Your task to perform on an android device: manage bookmarks in the chrome app Image 0: 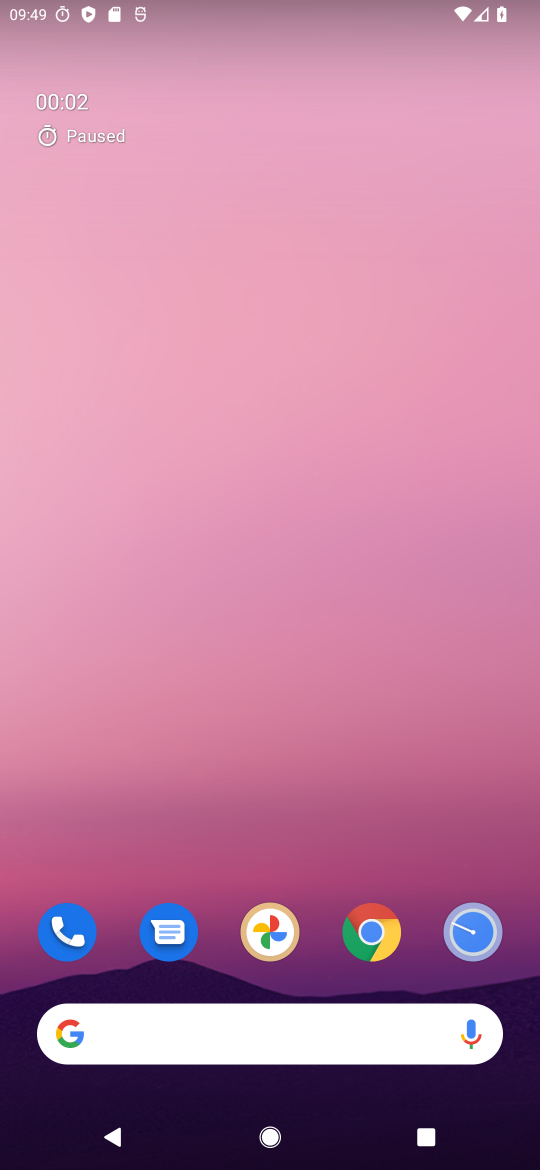
Step 0: press home button
Your task to perform on an android device: manage bookmarks in the chrome app Image 1: 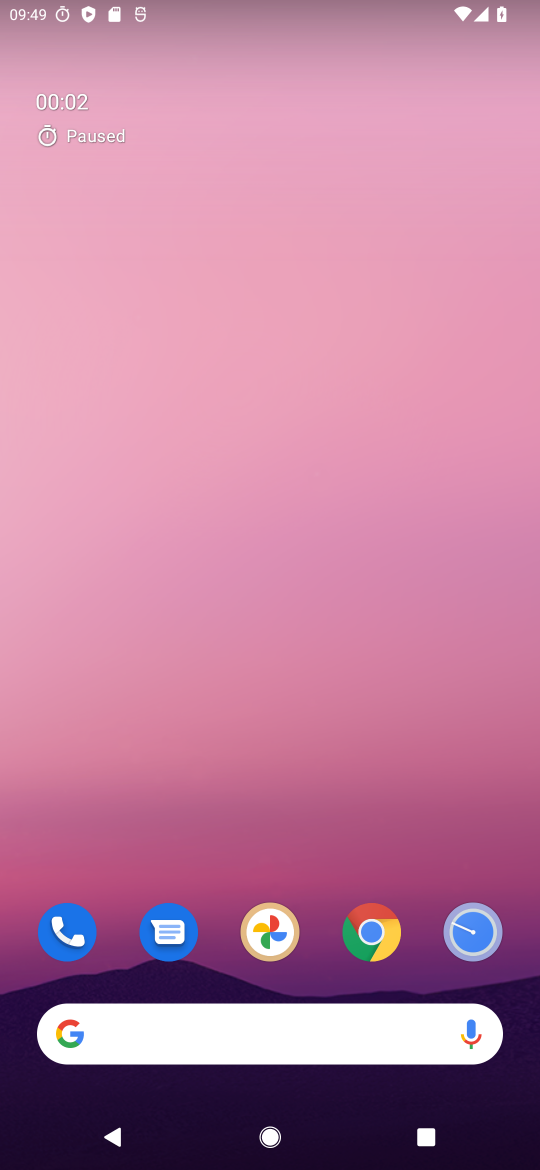
Step 1: click (380, 928)
Your task to perform on an android device: manage bookmarks in the chrome app Image 2: 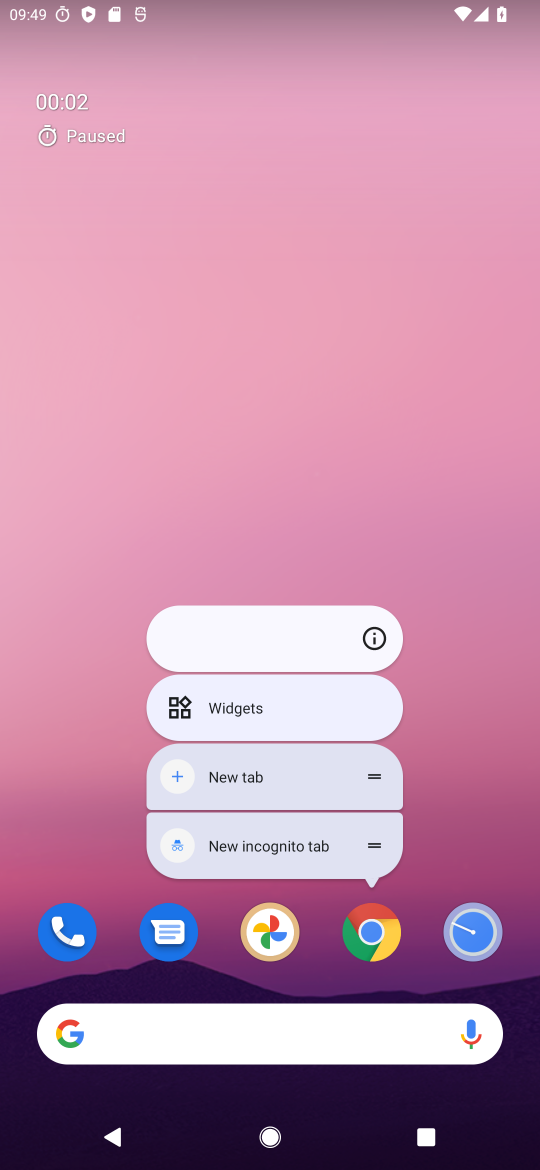
Step 2: click (380, 929)
Your task to perform on an android device: manage bookmarks in the chrome app Image 3: 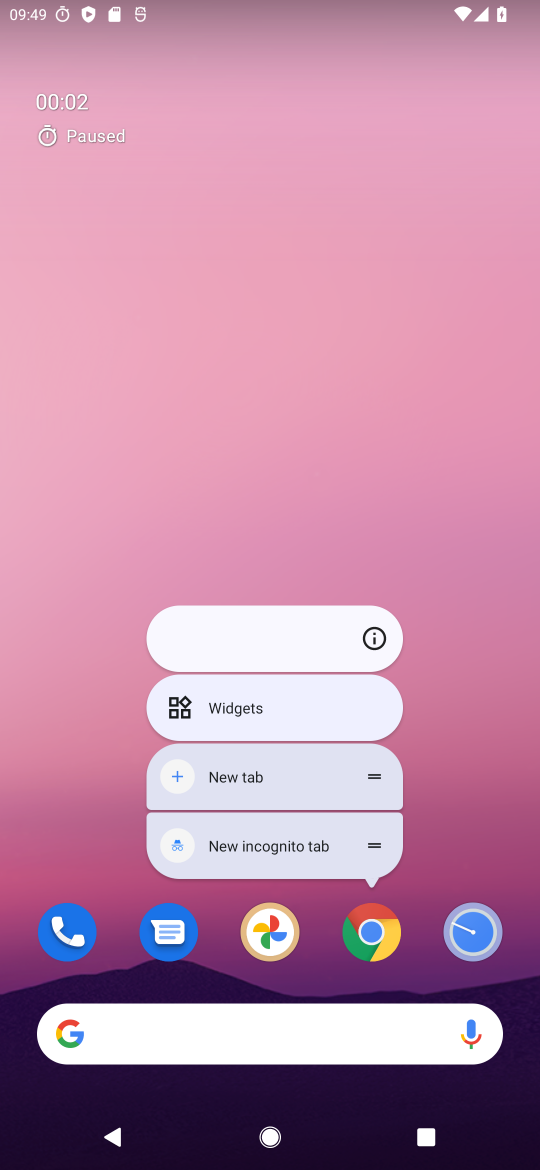
Step 3: click (380, 929)
Your task to perform on an android device: manage bookmarks in the chrome app Image 4: 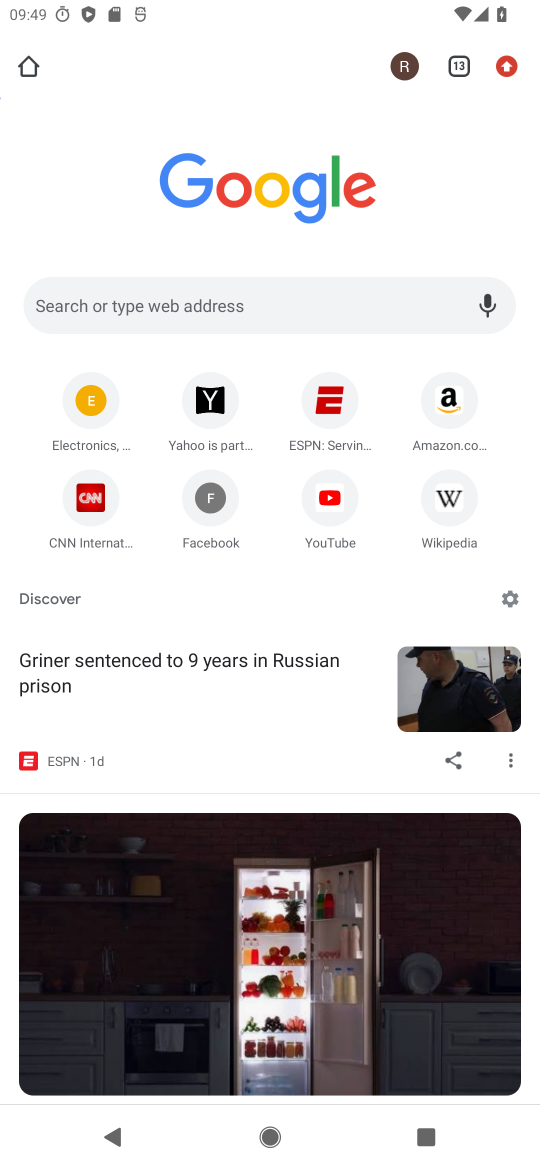
Step 4: drag from (509, 63) to (338, 442)
Your task to perform on an android device: manage bookmarks in the chrome app Image 5: 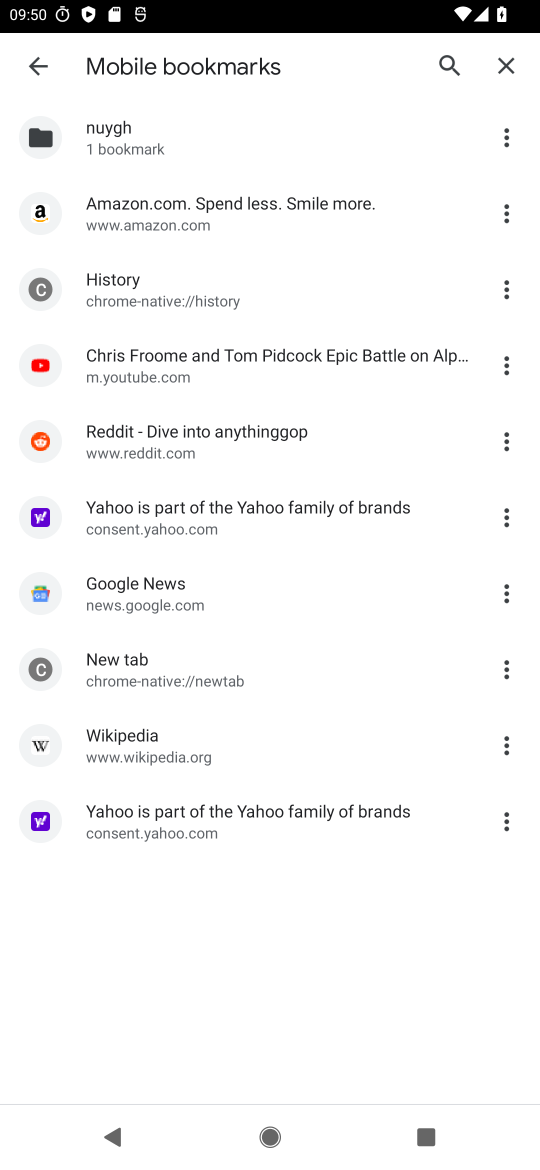
Step 5: click (503, 213)
Your task to perform on an android device: manage bookmarks in the chrome app Image 6: 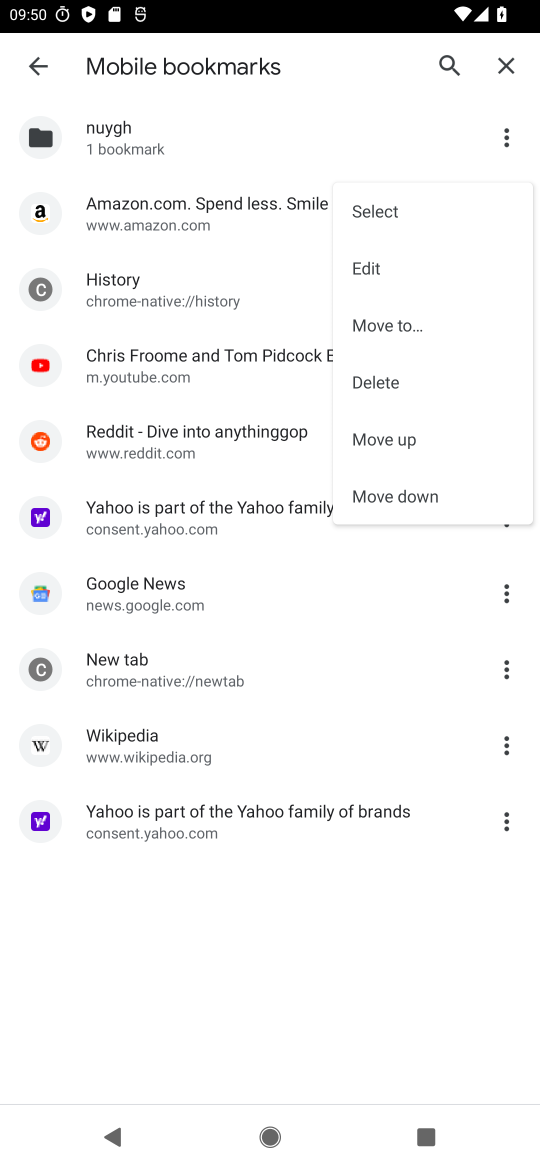
Step 6: click (383, 498)
Your task to perform on an android device: manage bookmarks in the chrome app Image 7: 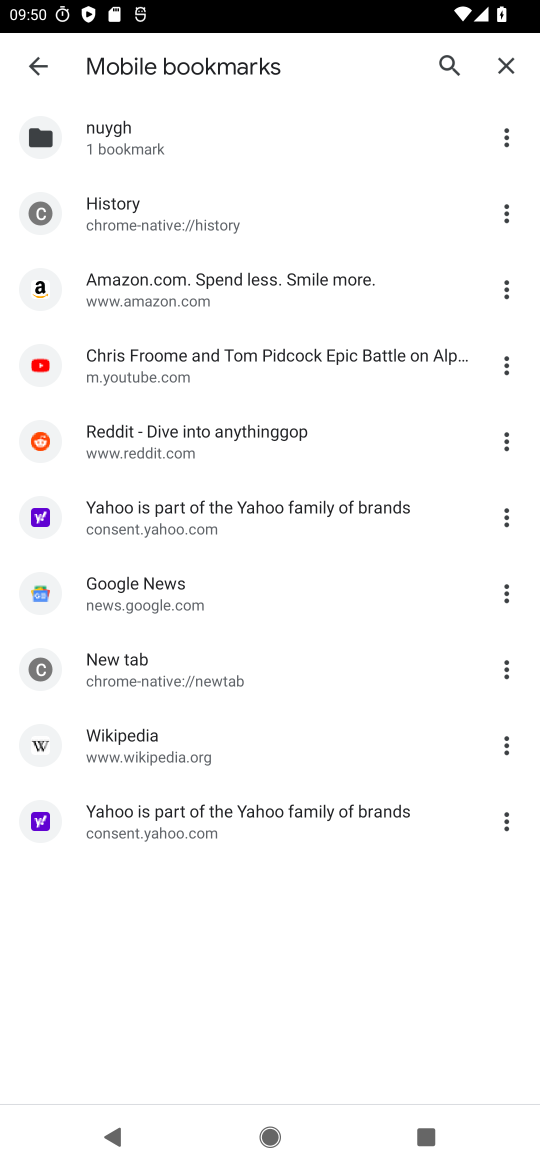
Step 7: task complete